Your task to perform on an android device: open app "Flipkart Online Shopping App" (install if not already installed) Image 0: 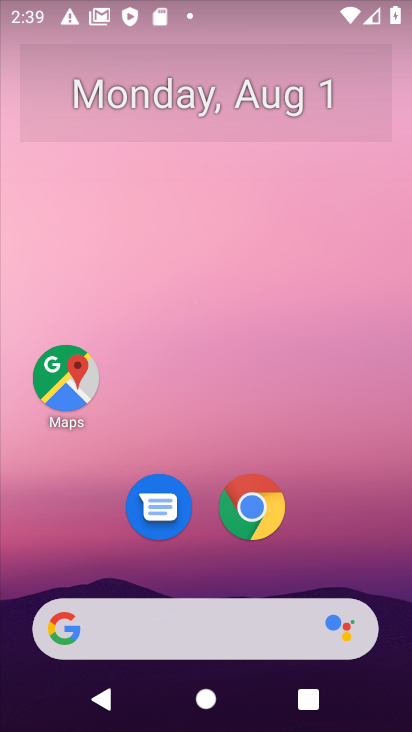
Step 0: drag from (332, 563) to (326, 19)
Your task to perform on an android device: open app "Flipkart Online Shopping App" (install if not already installed) Image 1: 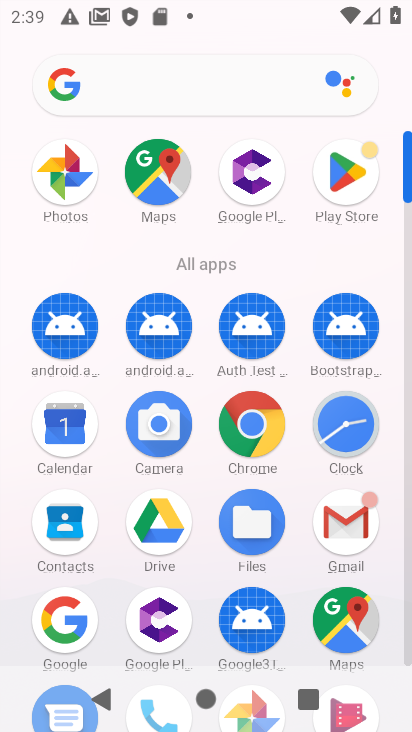
Step 1: click (352, 176)
Your task to perform on an android device: open app "Flipkart Online Shopping App" (install if not already installed) Image 2: 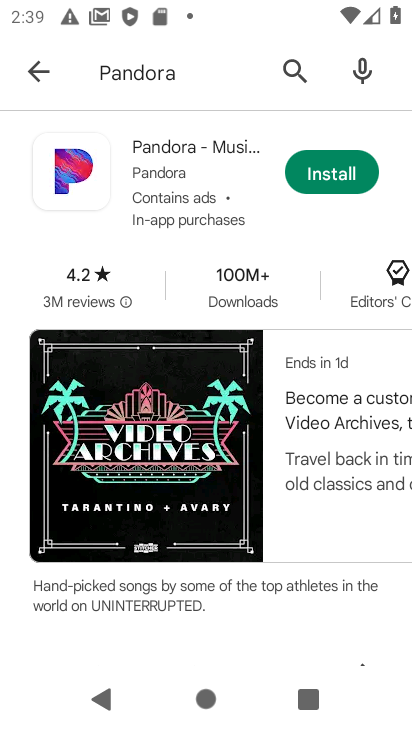
Step 2: click (218, 90)
Your task to perform on an android device: open app "Flipkart Online Shopping App" (install if not already installed) Image 3: 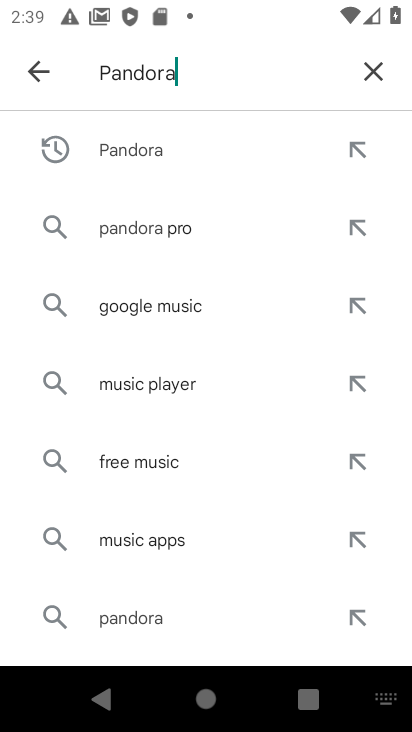
Step 3: click (371, 65)
Your task to perform on an android device: open app "Flipkart Online Shopping App" (install if not already installed) Image 4: 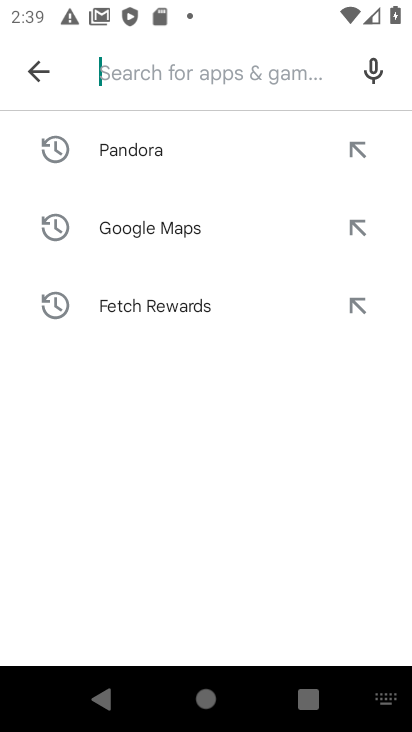
Step 4: type "Flipkart Online Shopping App"
Your task to perform on an android device: open app "Flipkart Online Shopping App" (install if not already installed) Image 5: 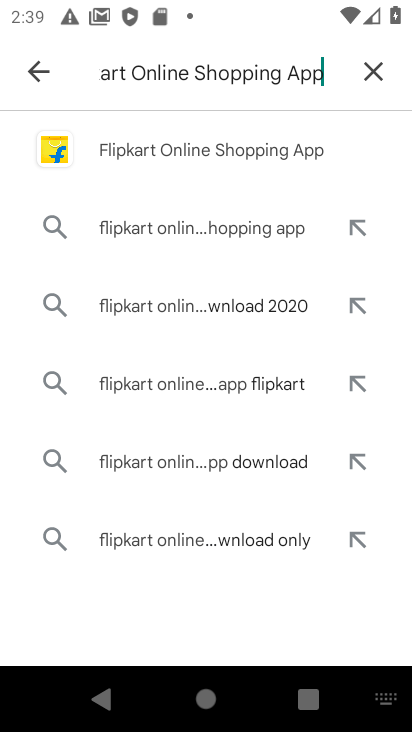
Step 5: press enter
Your task to perform on an android device: open app "Flipkart Online Shopping App" (install if not already installed) Image 6: 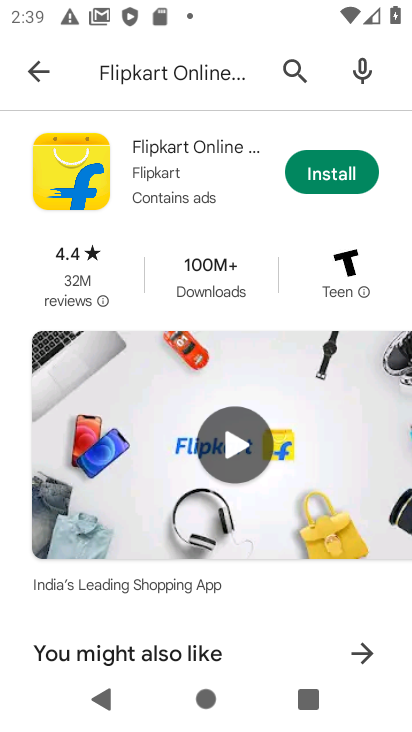
Step 6: click (315, 163)
Your task to perform on an android device: open app "Flipkart Online Shopping App" (install if not already installed) Image 7: 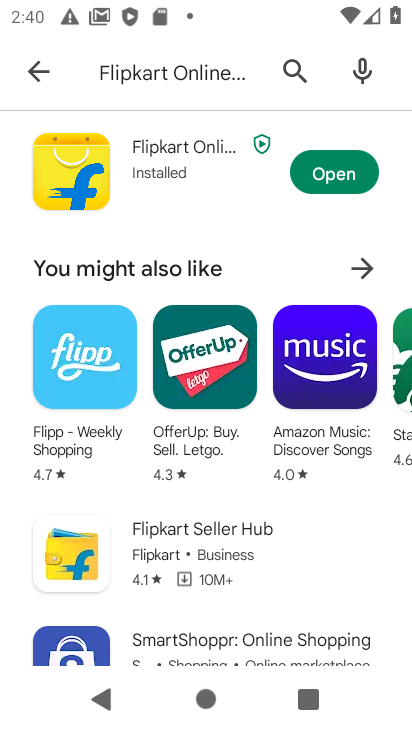
Step 7: click (339, 186)
Your task to perform on an android device: open app "Flipkart Online Shopping App" (install if not already installed) Image 8: 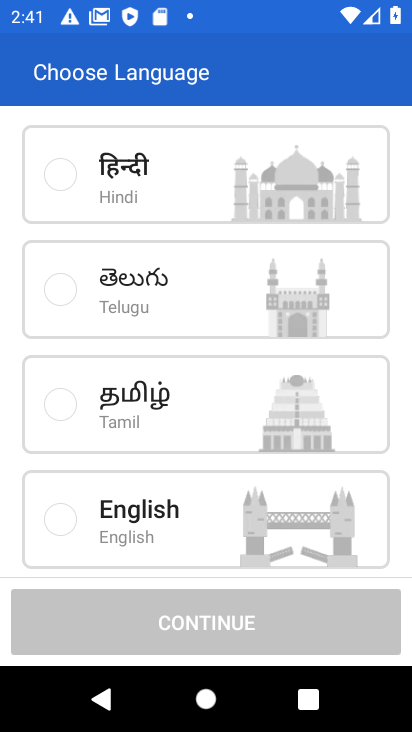
Step 8: task complete